Your task to perform on an android device: Go to sound settings Image 0: 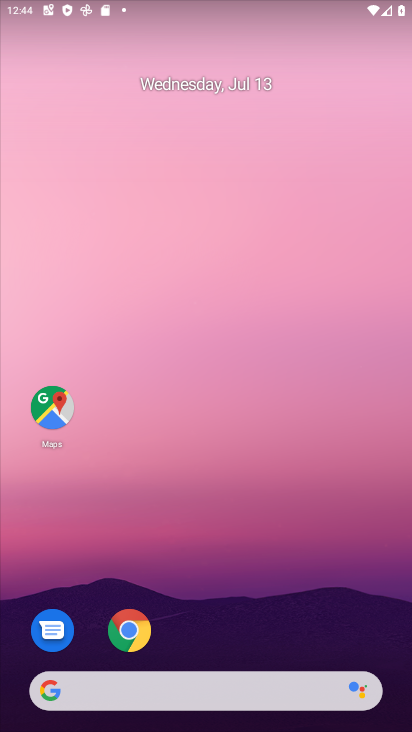
Step 0: drag from (387, 667) to (251, 45)
Your task to perform on an android device: Go to sound settings Image 1: 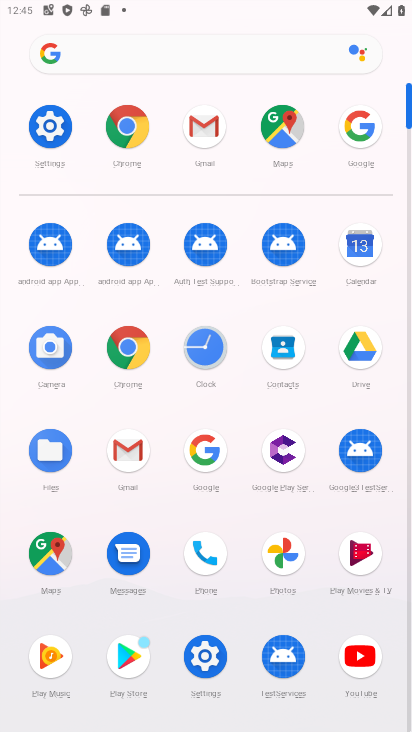
Step 1: click (205, 673)
Your task to perform on an android device: Go to sound settings Image 2: 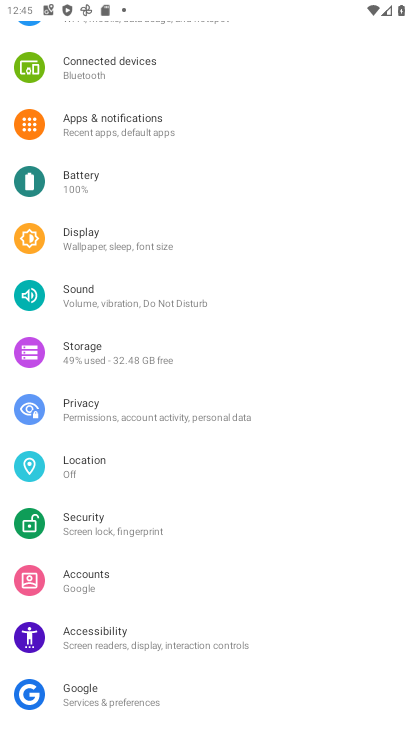
Step 2: click (113, 307)
Your task to perform on an android device: Go to sound settings Image 3: 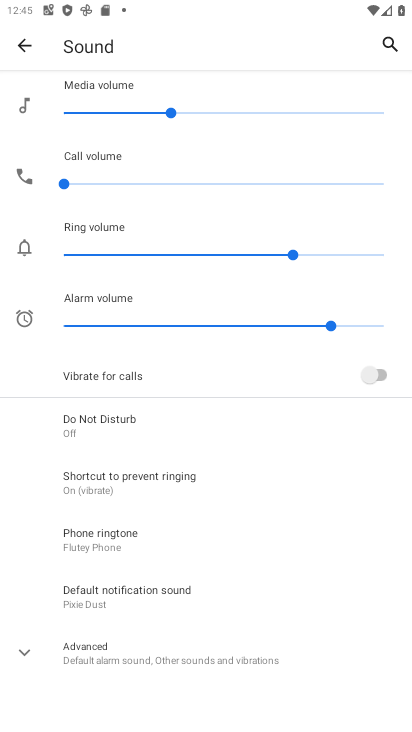
Step 3: task complete